Your task to perform on an android device: Search for Mexican restaurants on Maps Image 0: 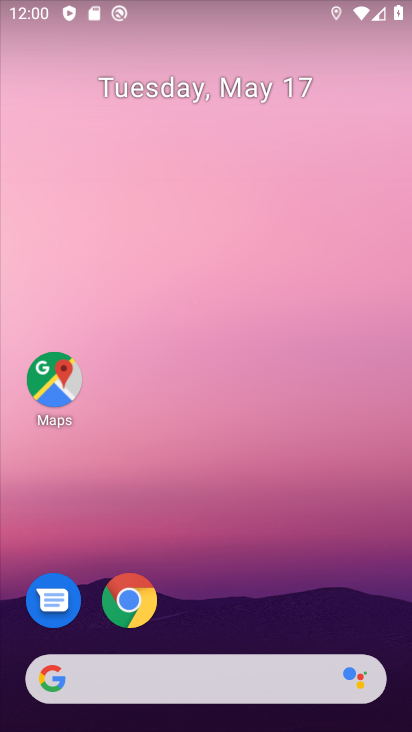
Step 0: drag from (271, 612) to (265, 165)
Your task to perform on an android device: Search for Mexican restaurants on Maps Image 1: 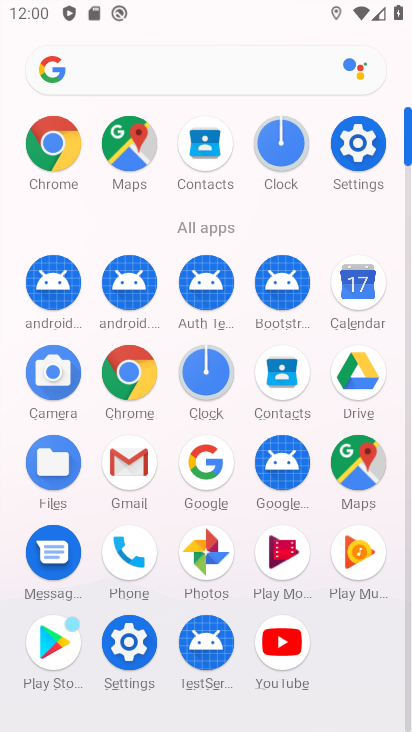
Step 1: click (125, 154)
Your task to perform on an android device: Search for Mexican restaurants on Maps Image 2: 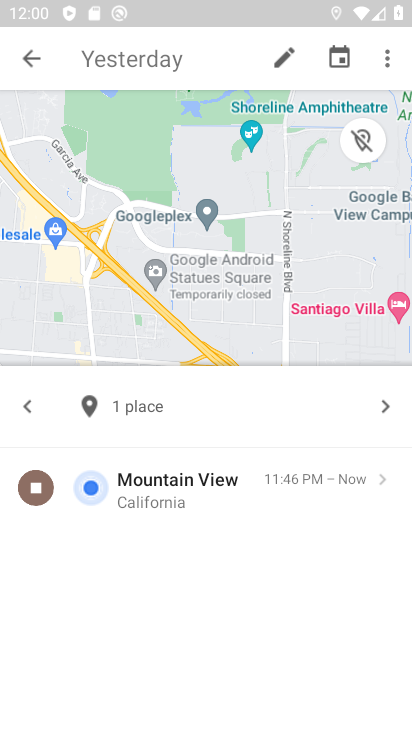
Step 2: click (26, 68)
Your task to perform on an android device: Search for Mexican restaurants on Maps Image 3: 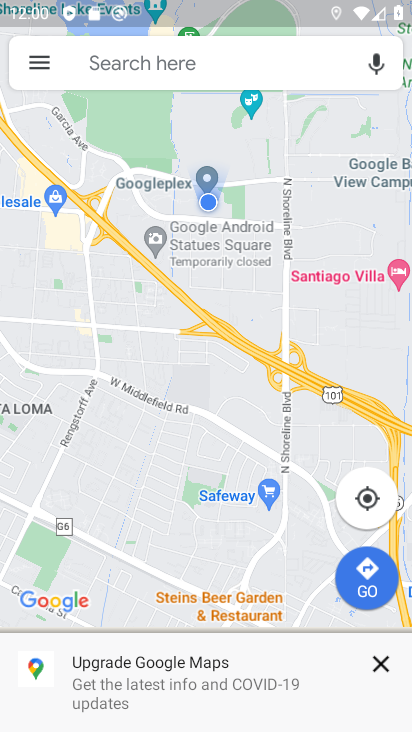
Step 3: click (89, 51)
Your task to perform on an android device: Search for Mexican restaurants on Maps Image 4: 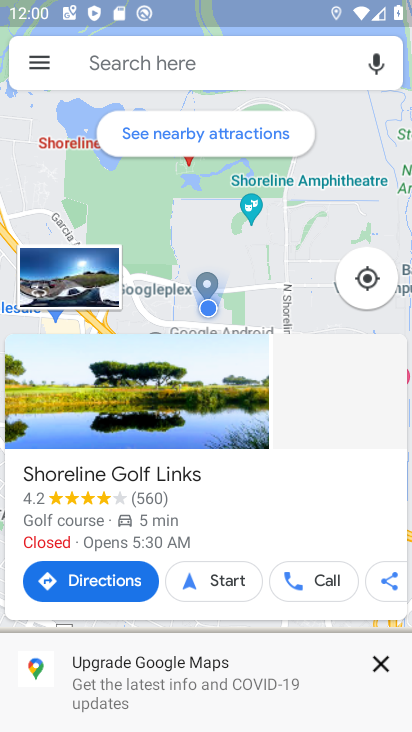
Step 4: click (136, 63)
Your task to perform on an android device: Search for Mexican restaurants on Maps Image 5: 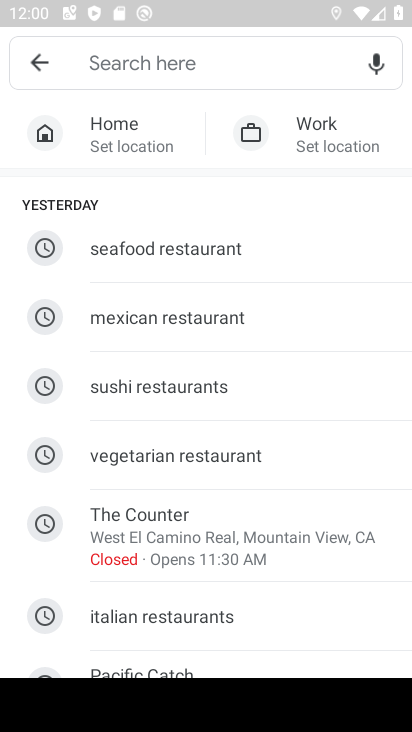
Step 5: click (224, 321)
Your task to perform on an android device: Search for Mexican restaurants on Maps Image 6: 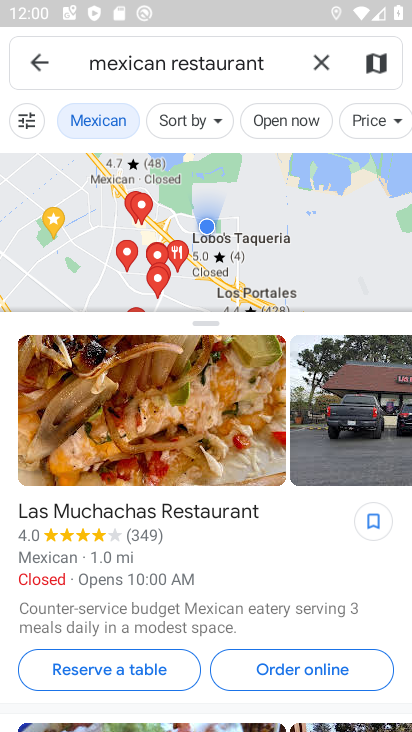
Step 6: task complete